Your task to perform on an android device: Go to display settings Image 0: 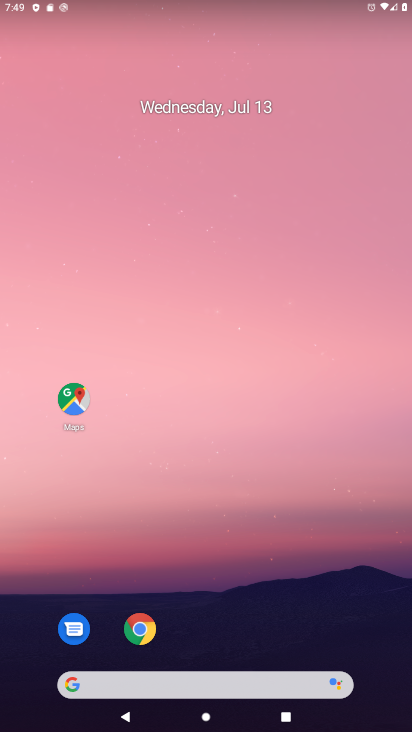
Step 0: drag from (315, 603) to (288, 9)
Your task to perform on an android device: Go to display settings Image 1: 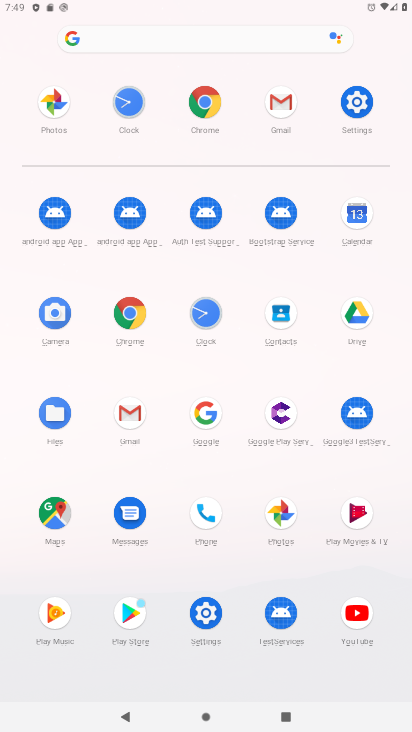
Step 1: click (359, 115)
Your task to perform on an android device: Go to display settings Image 2: 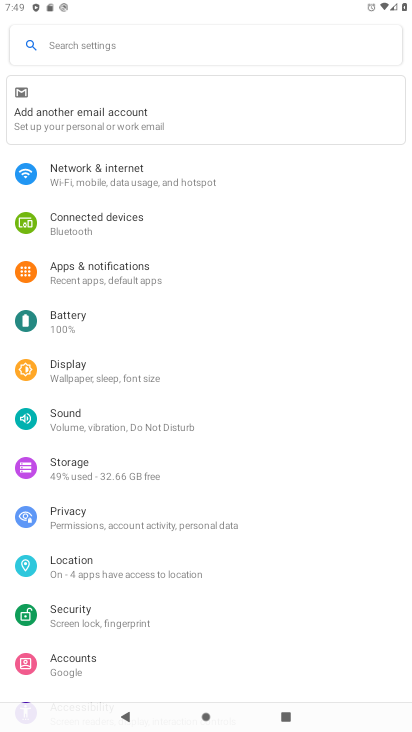
Step 2: click (76, 375)
Your task to perform on an android device: Go to display settings Image 3: 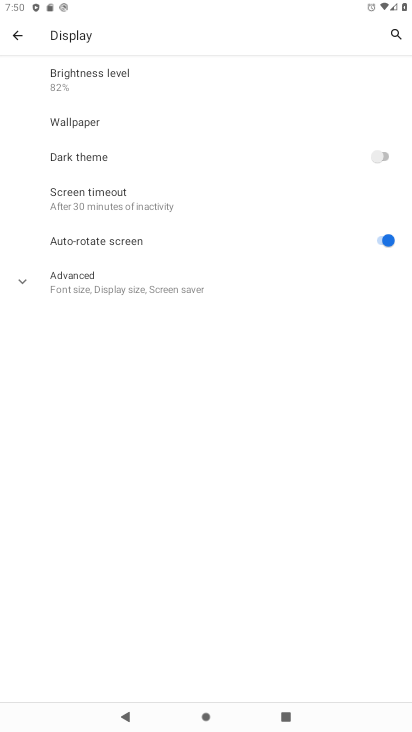
Step 3: task complete